Your task to perform on an android device: turn pop-ups on in chrome Image 0: 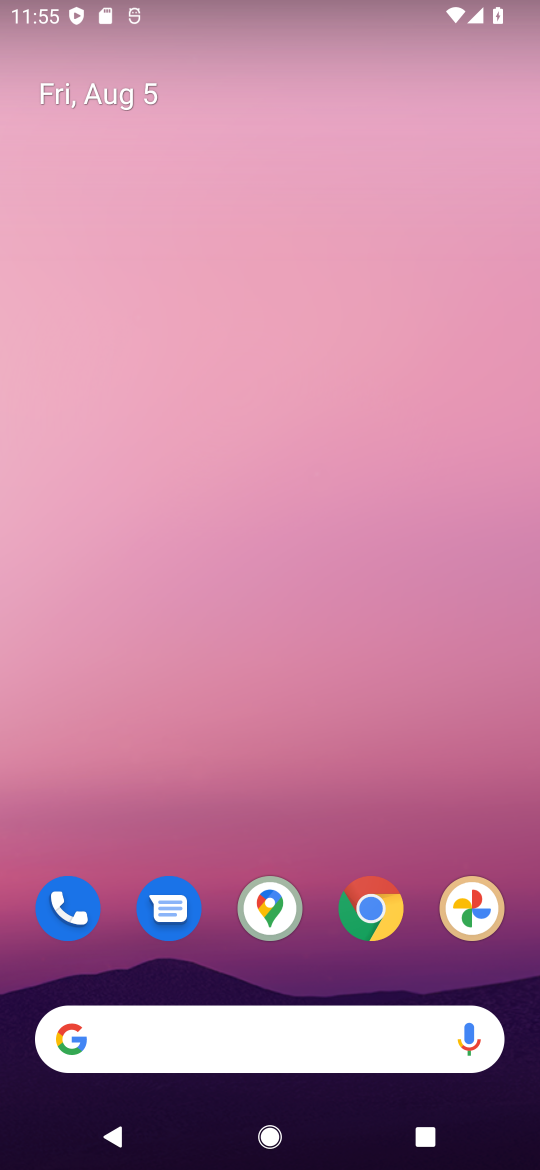
Step 0: drag from (307, 963) to (372, 236)
Your task to perform on an android device: turn pop-ups on in chrome Image 1: 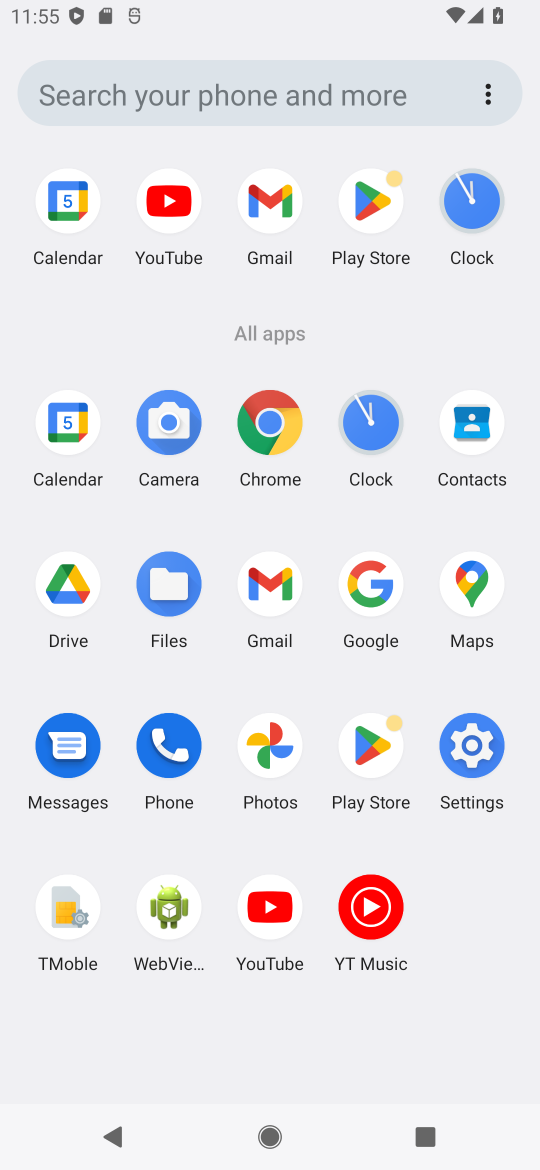
Step 1: click (261, 415)
Your task to perform on an android device: turn pop-ups on in chrome Image 2: 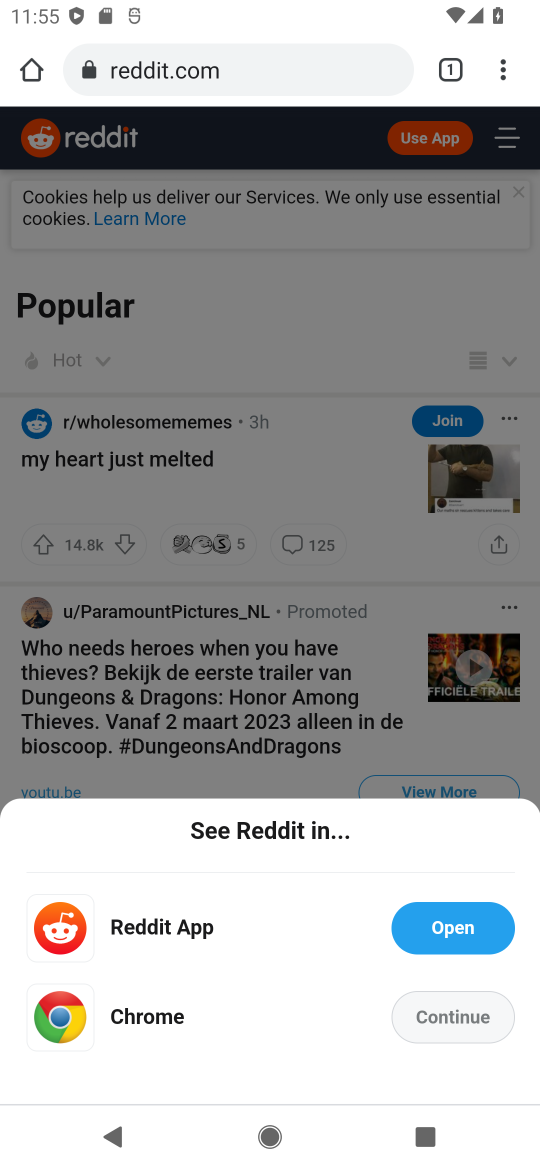
Step 2: drag from (507, 46) to (394, 817)
Your task to perform on an android device: turn pop-ups on in chrome Image 3: 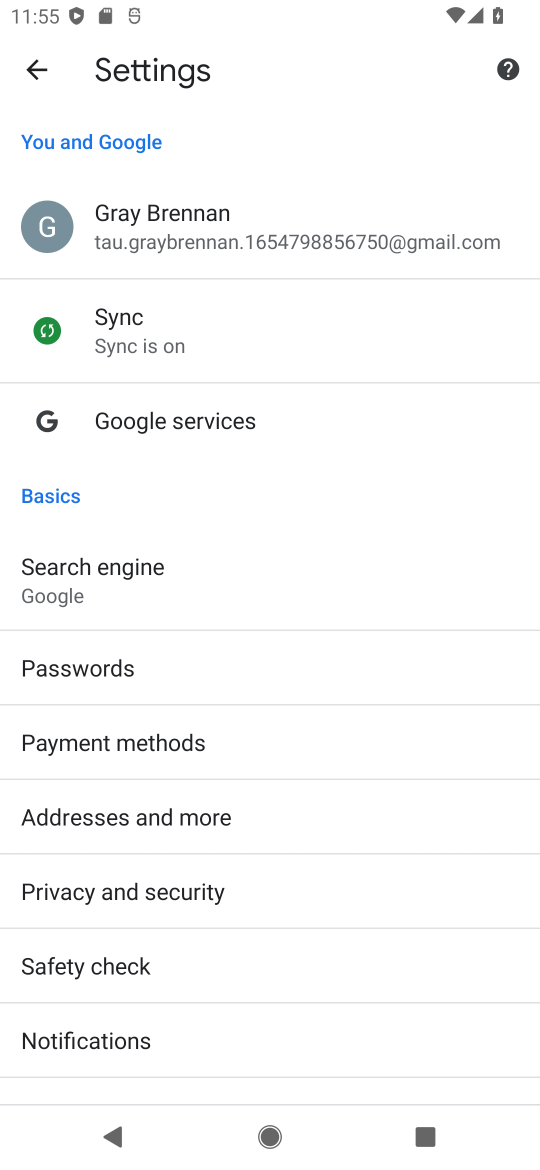
Step 3: drag from (356, 1003) to (370, 291)
Your task to perform on an android device: turn pop-ups on in chrome Image 4: 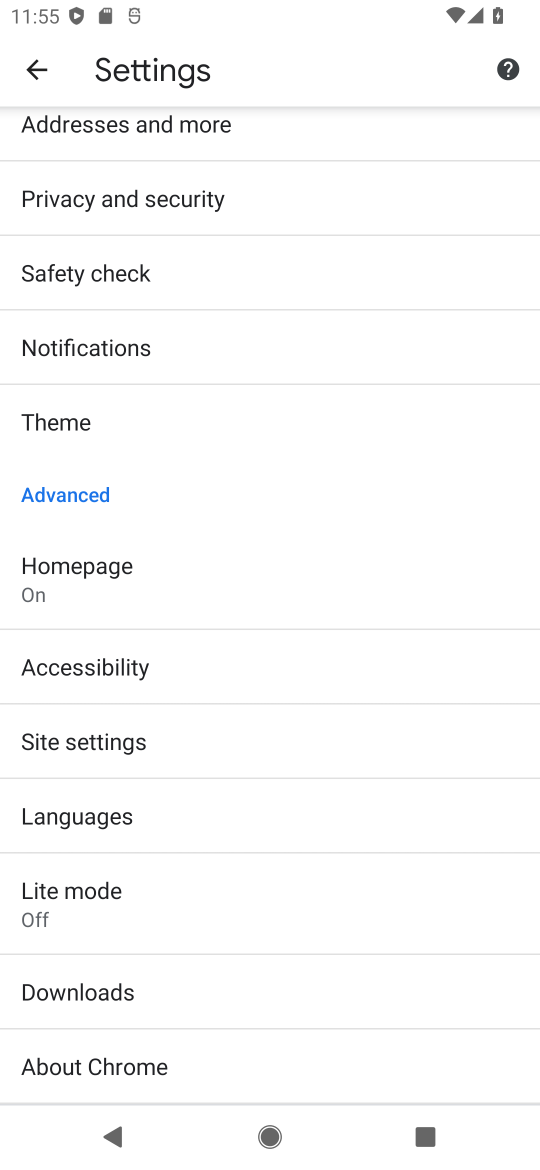
Step 4: click (106, 736)
Your task to perform on an android device: turn pop-ups on in chrome Image 5: 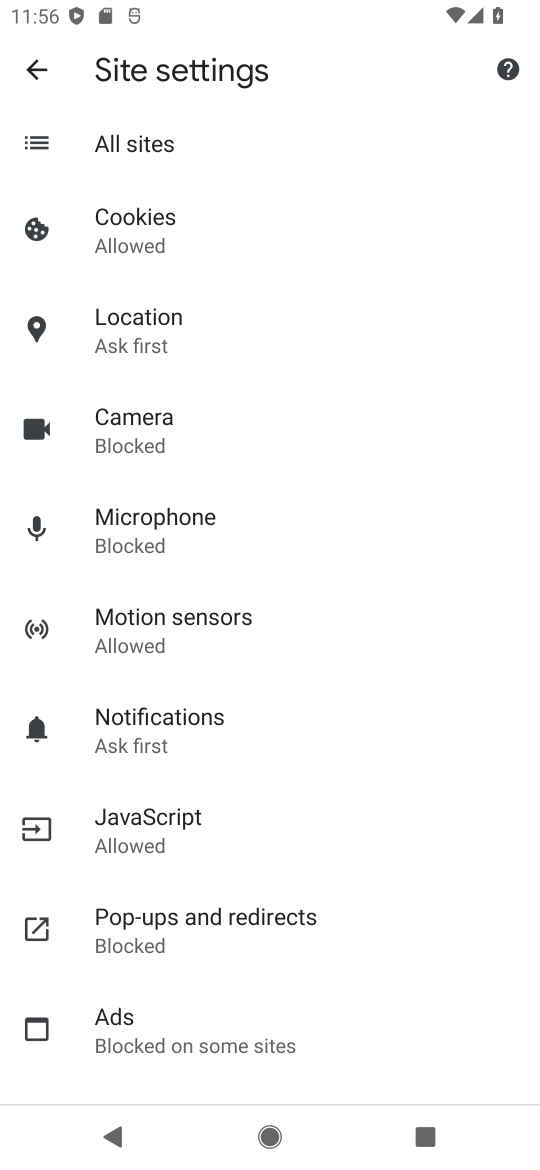
Step 5: click (303, 934)
Your task to perform on an android device: turn pop-ups on in chrome Image 6: 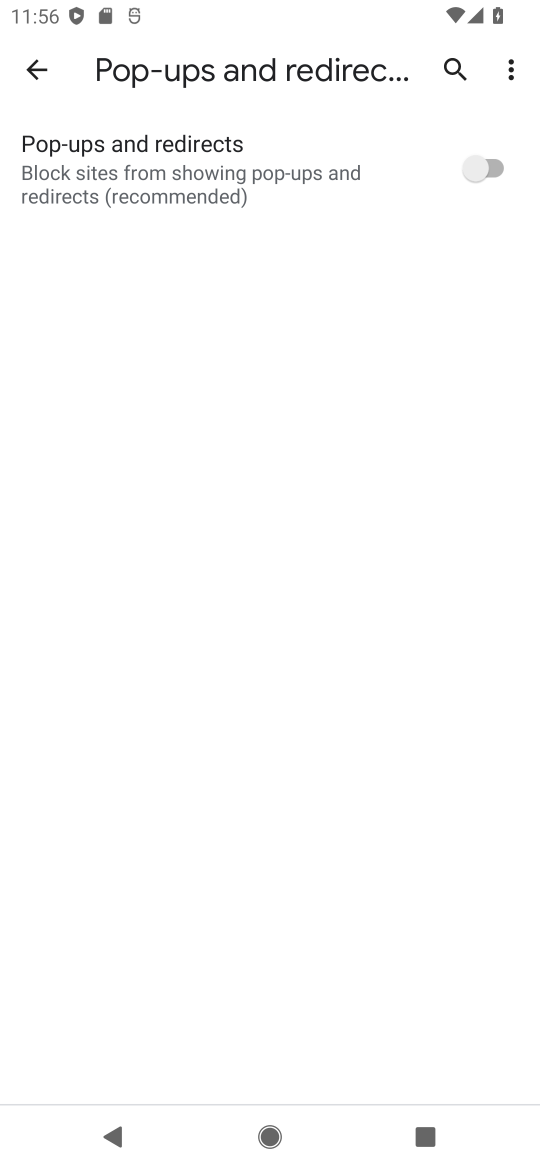
Step 6: click (463, 146)
Your task to perform on an android device: turn pop-ups on in chrome Image 7: 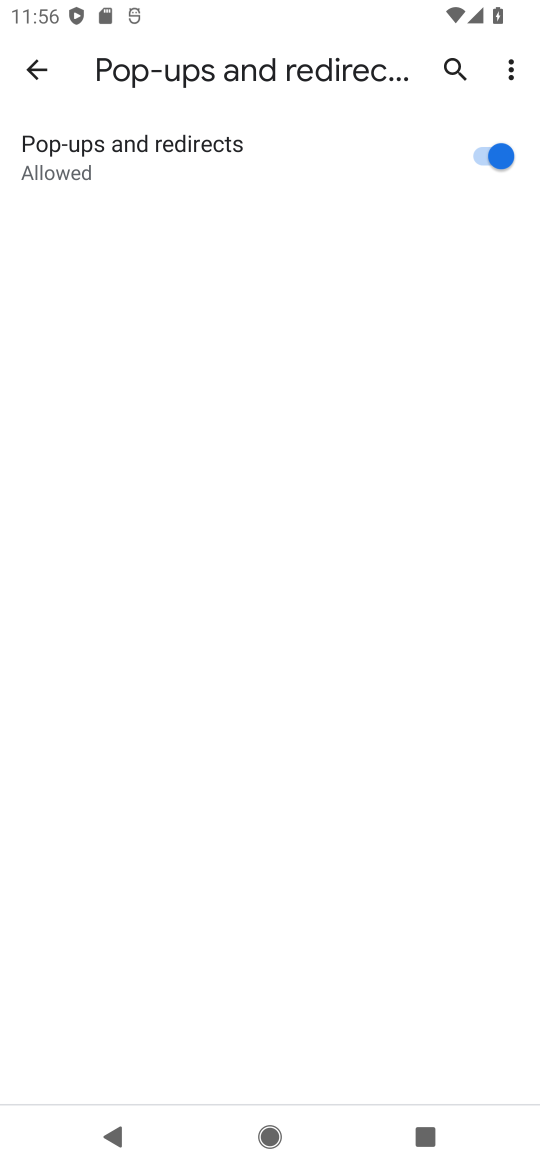
Step 7: task complete